Your task to perform on an android device: Open internet settings Image 0: 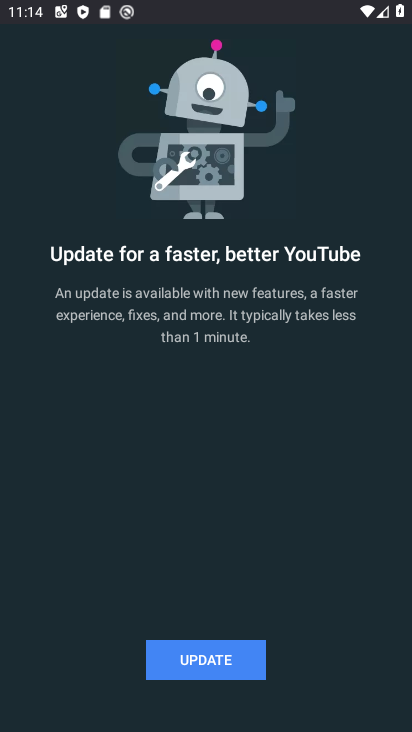
Step 0: press home button
Your task to perform on an android device: Open internet settings Image 1: 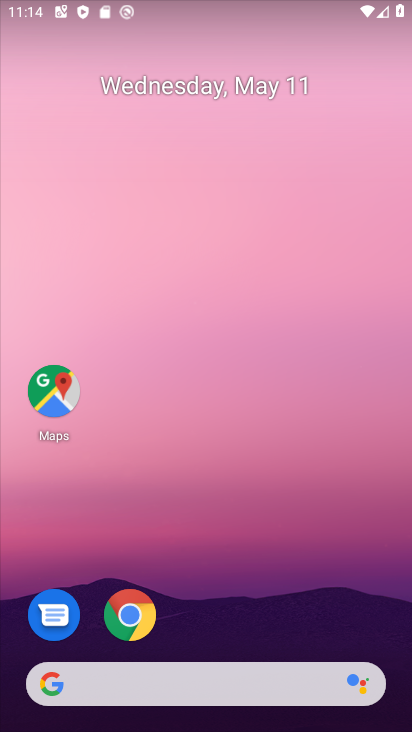
Step 1: drag from (258, 536) to (218, 45)
Your task to perform on an android device: Open internet settings Image 2: 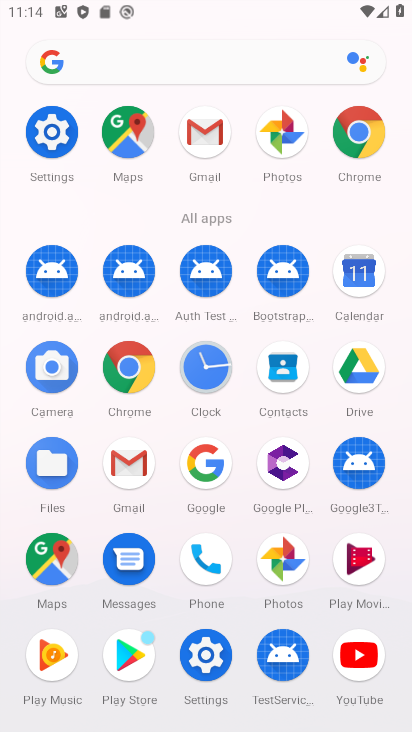
Step 2: click (48, 133)
Your task to perform on an android device: Open internet settings Image 3: 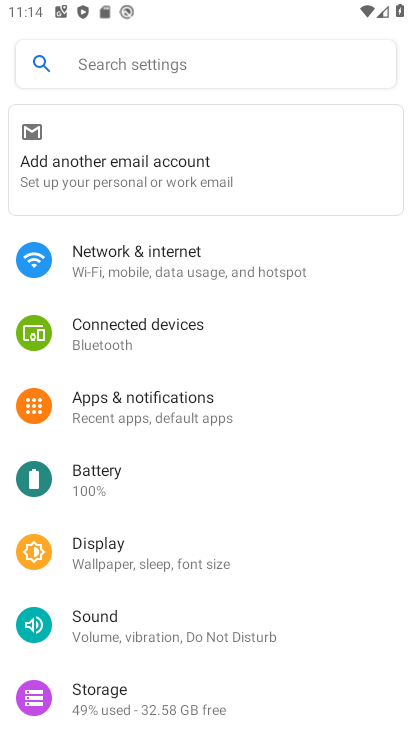
Step 3: click (151, 247)
Your task to perform on an android device: Open internet settings Image 4: 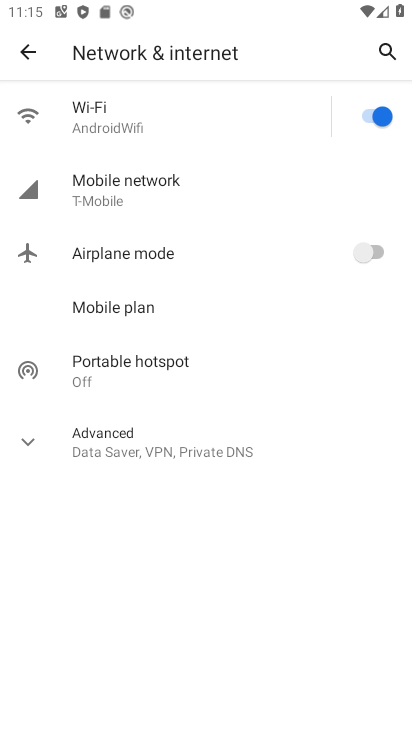
Step 4: task complete